Your task to perform on an android device: install app "Google Play services" Image 0: 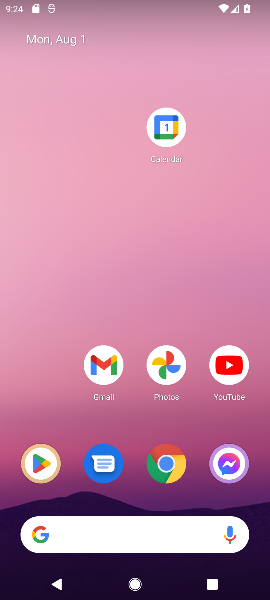
Step 0: click (38, 476)
Your task to perform on an android device: install app "Google Play services" Image 1: 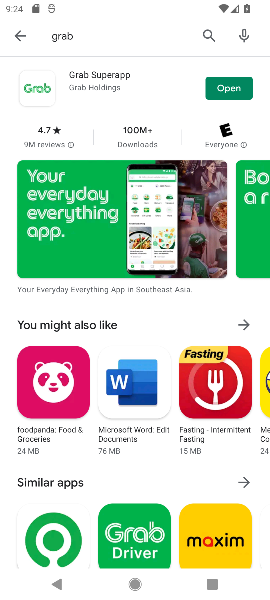
Step 1: task complete